Your task to perform on an android device: add a contact in the contacts app Image 0: 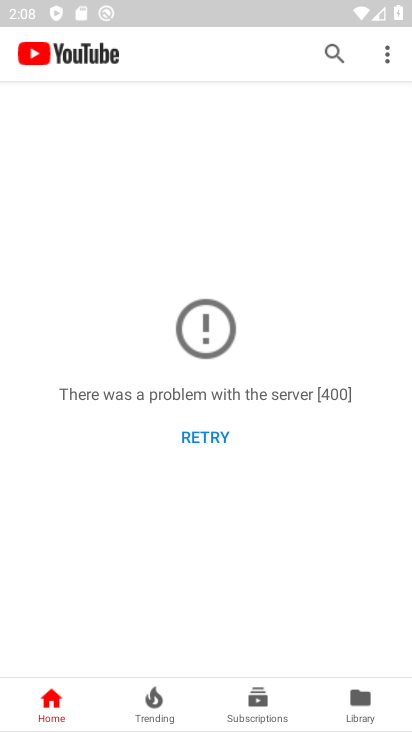
Step 0: press home button
Your task to perform on an android device: add a contact in the contacts app Image 1: 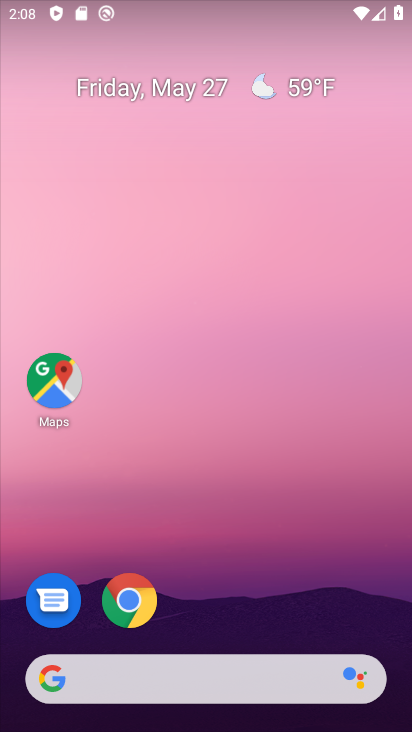
Step 1: drag from (201, 617) to (265, 204)
Your task to perform on an android device: add a contact in the contacts app Image 2: 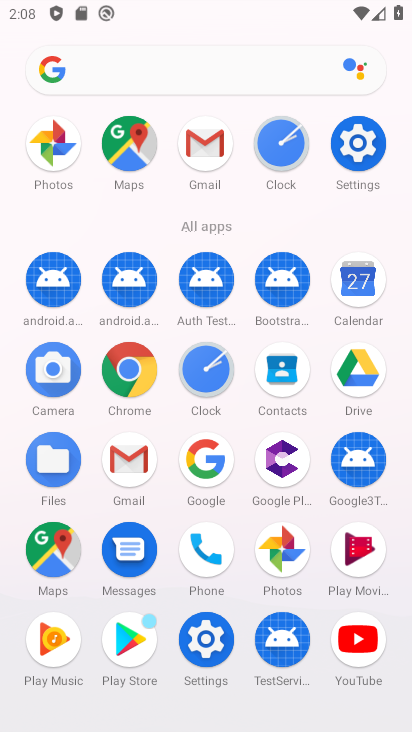
Step 2: click (282, 372)
Your task to perform on an android device: add a contact in the contacts app Image 3: 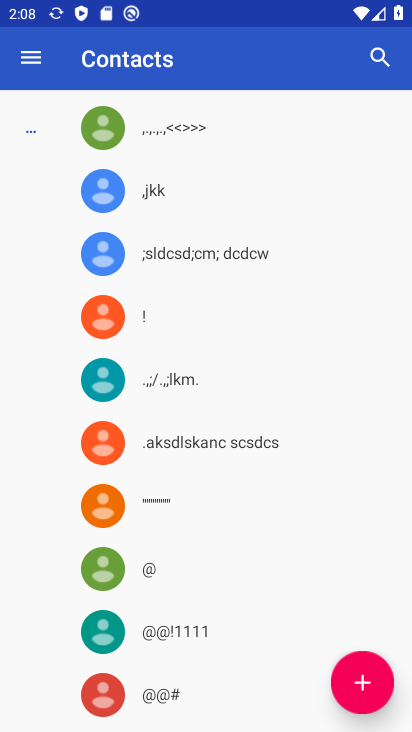
Step 3: click (361, 683)
Your task to perform on an android device: add a contact in the contacts app Image 4: 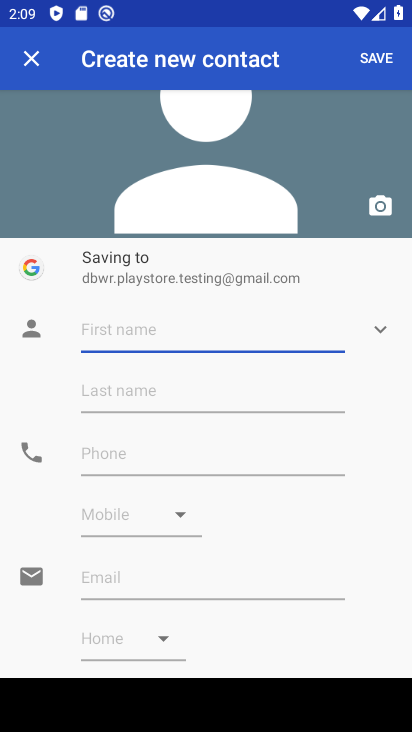
Step 4: type "Ajmeri"
Your task to perform on an android device: add a contact in the contacts app Image 5: 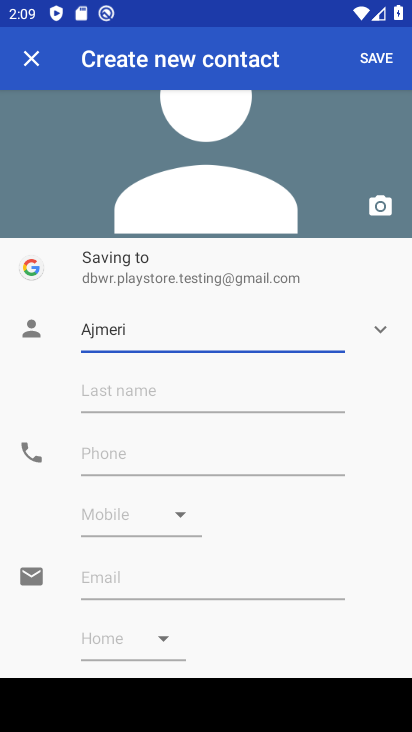
Step 5: click (254, 393)
Your task to perform on an android device: add a contact in the contacts app Image 6: 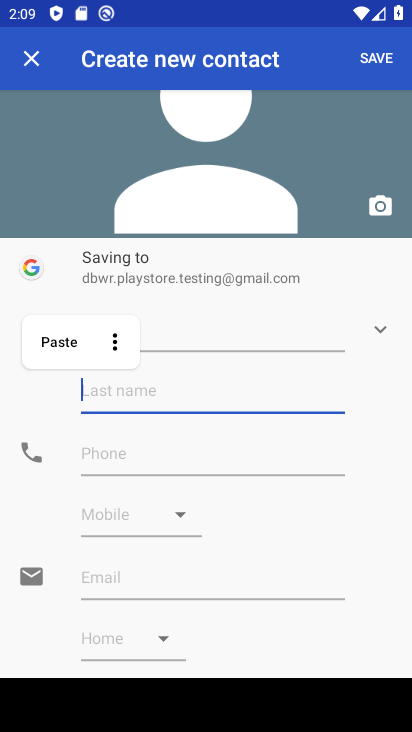
Step 6: type "gate"
Your task to perform on an android device: add a contact in the contacts app Image 7: 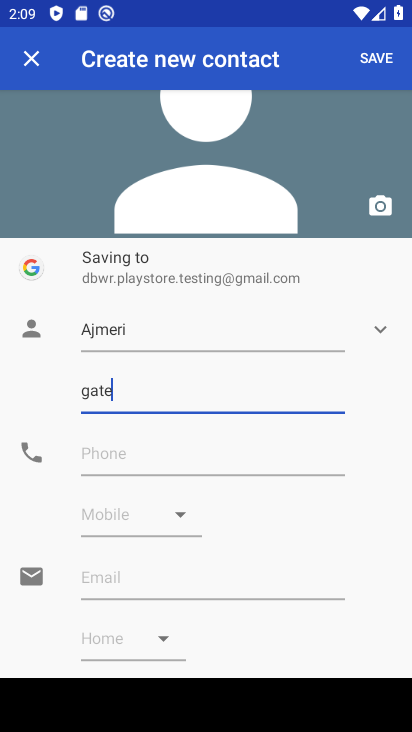
Step 7: click (176, 450)
Your task to perform on an android device: add a contact in the contacts app Image 8: 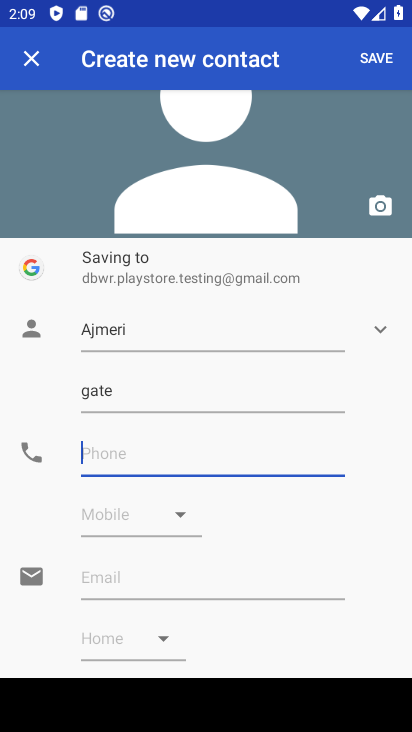
Step 8: type "0998877665544"
Your task to perform on an android device: add a contact in the contacts app Image 9: 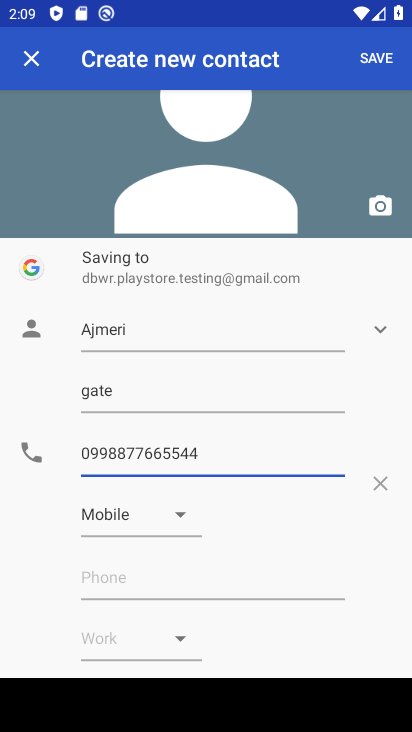
Step 9: click (372, 52)
Your task to perform on an android device: add a contact in the contacts app Image 10: 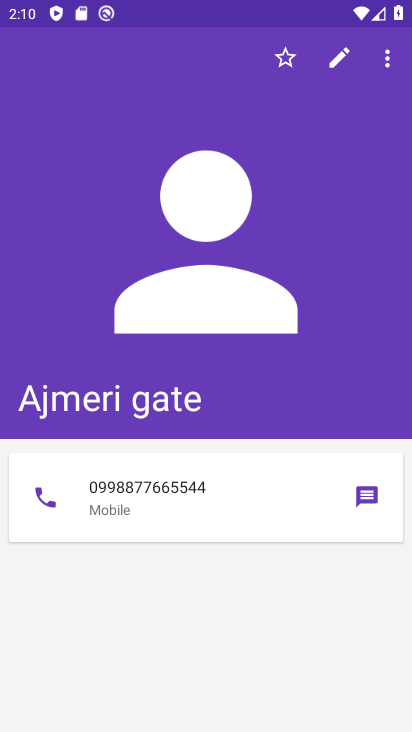
Step 10: task complete